Your task to perform on an android device: Clear the shopping cart on amazon. Add "razer deathadder" to the cart on amazon Image 0: 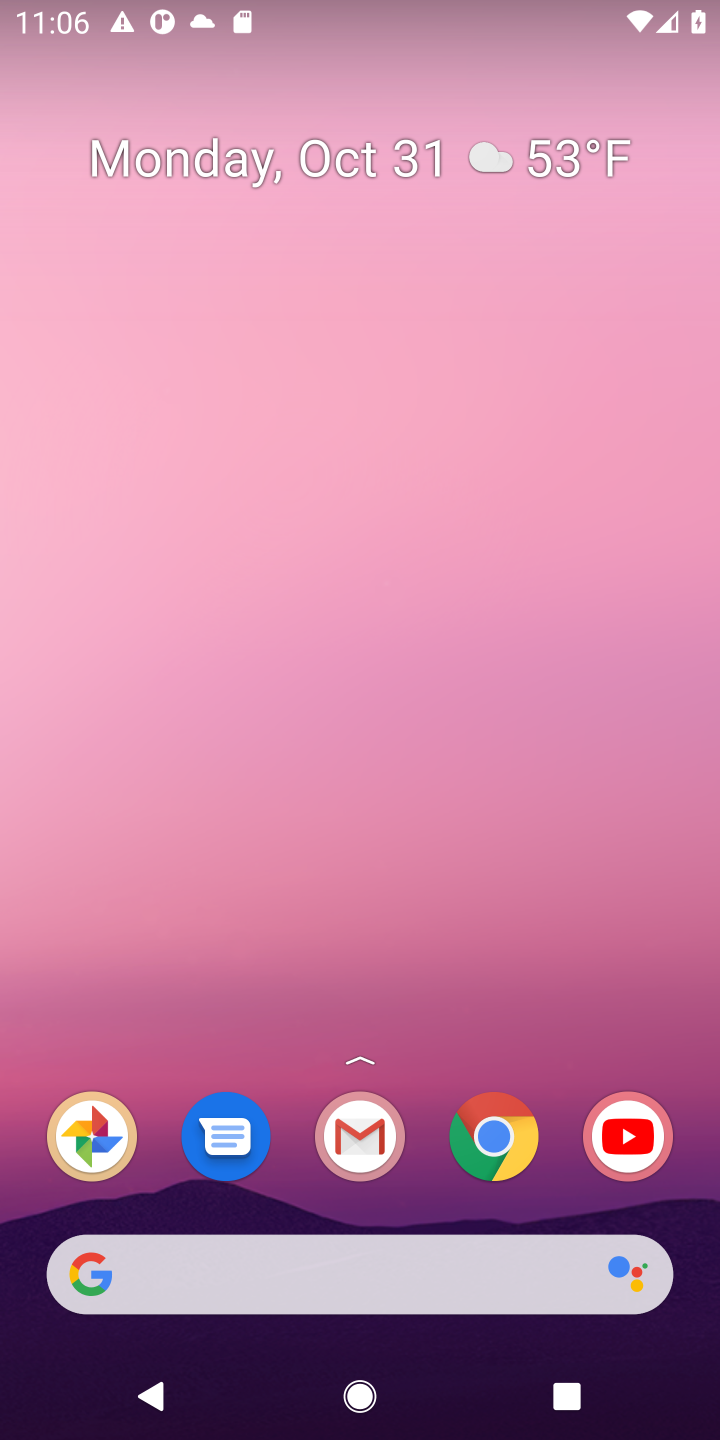
Step 0: press home button
Your task to perform on an android device: Clear the shopping cart on amazon. Add "razer deathadder" to the cart on amazon Image 1: 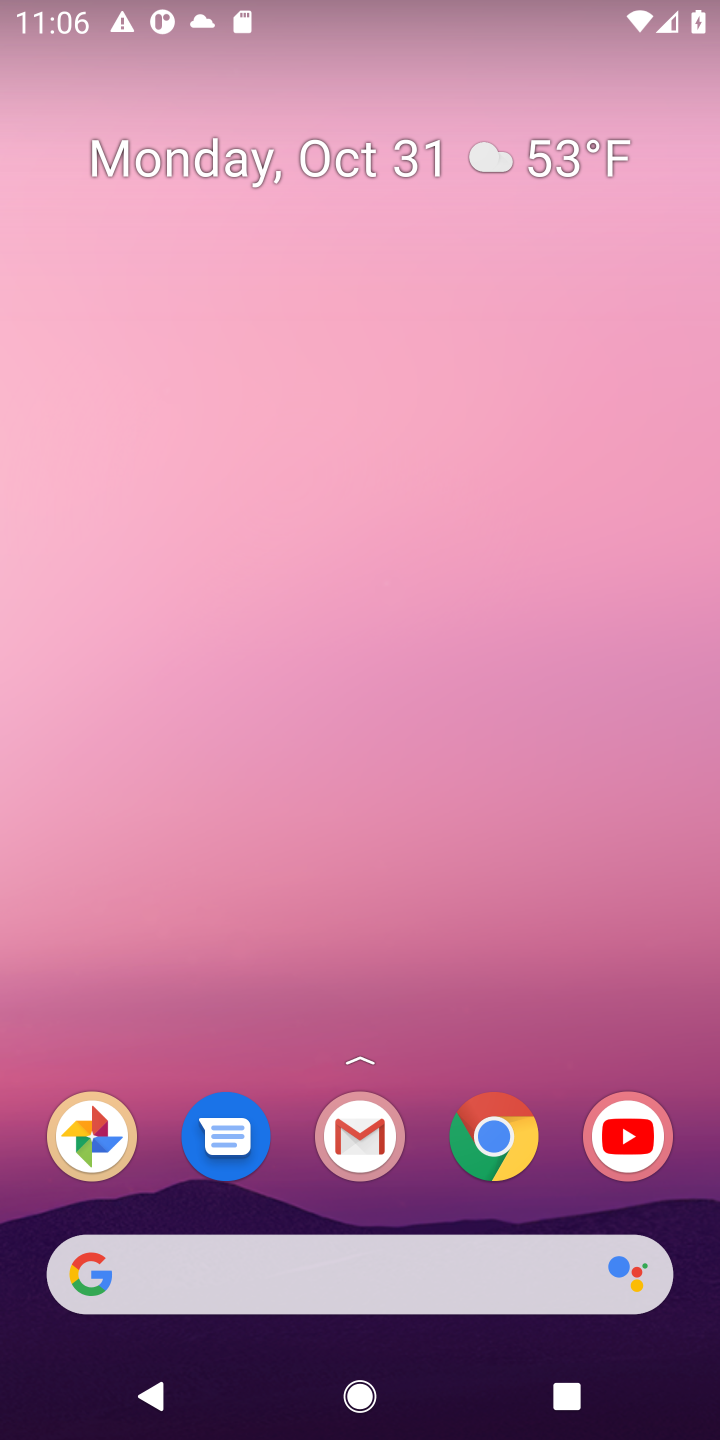
Step 1: click (135, 1277)
Your task to perform on an android device: Clear the shopping cart on amazon. Add "razer deathadder" to the cart on amazon Image 2: 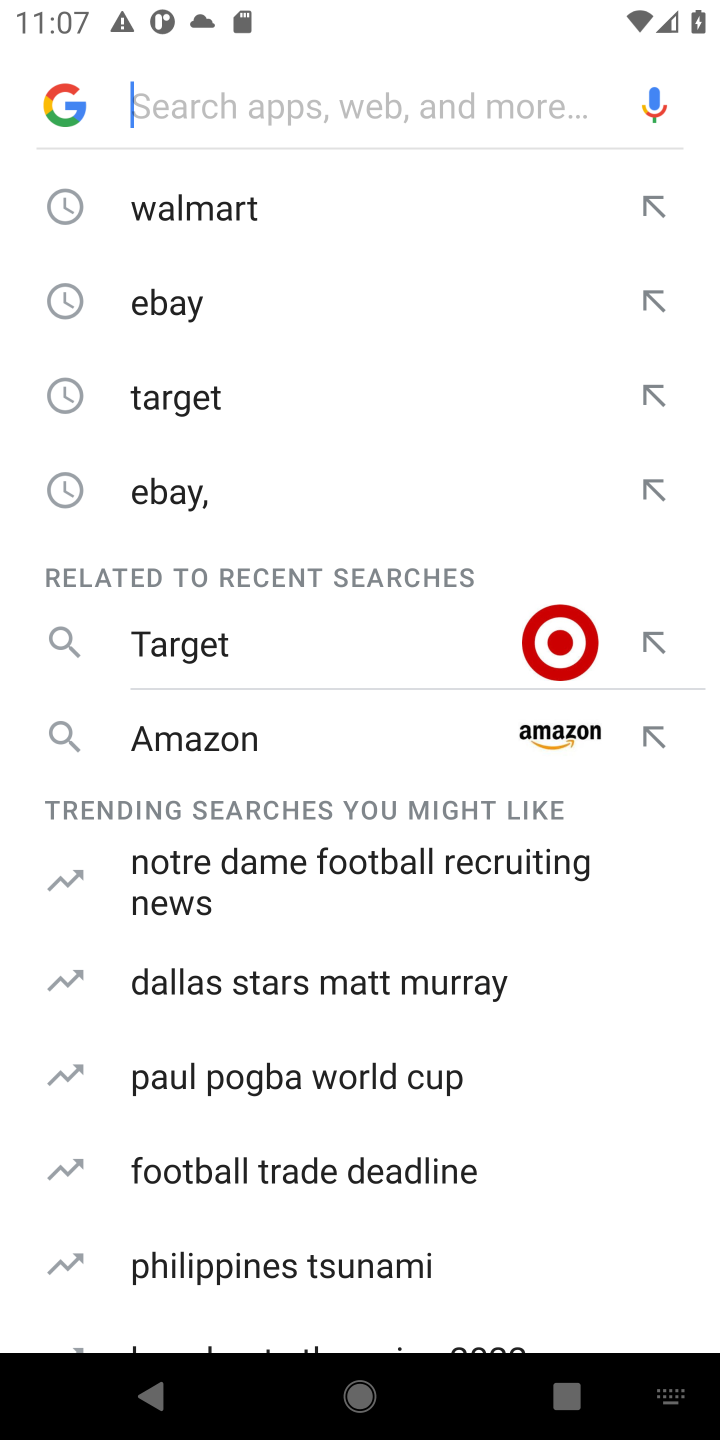
Step 2: type " amazon"
Your task to perform on an android device: Clear the shopping cart on amazon. Add "razer deathadder" to the cart on amazon Image 3: 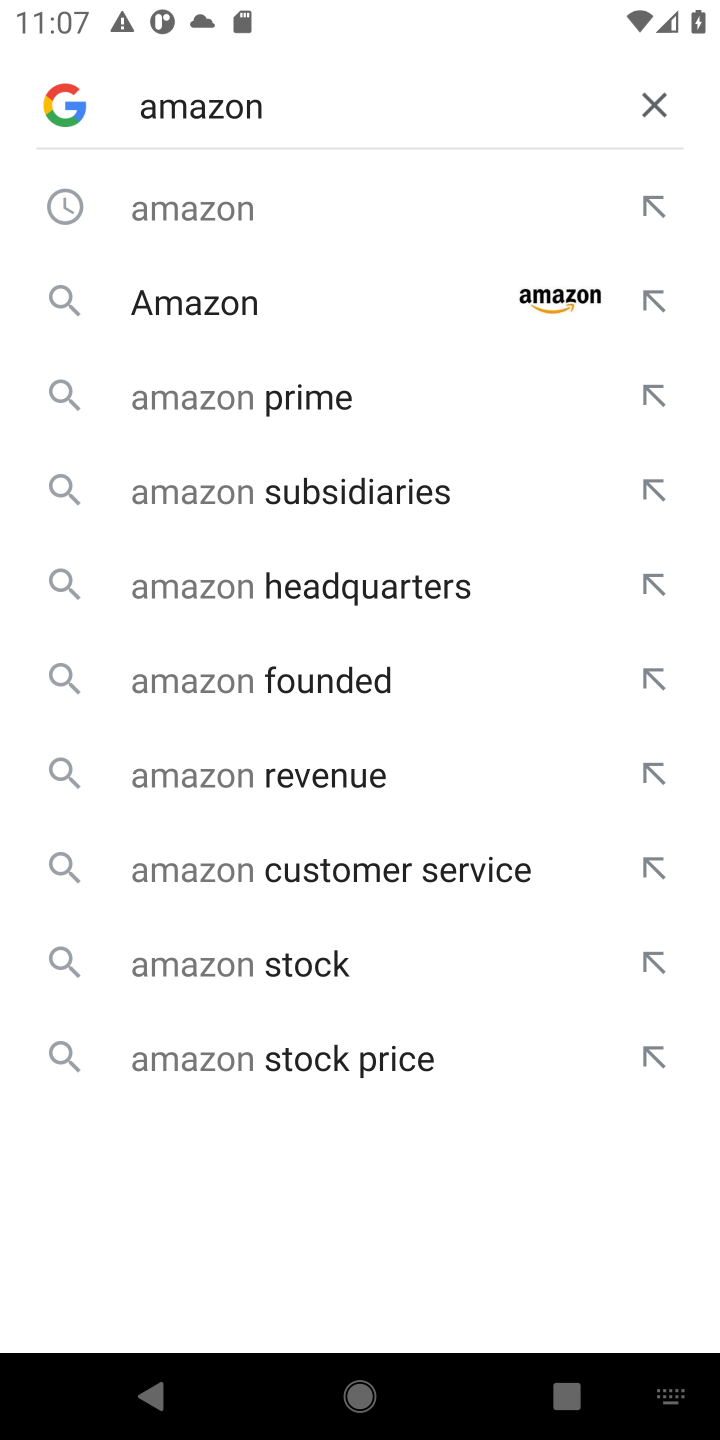
Step 3: press enter
Your task to perform on an android device: Clear the shopping cart on amazon. Add "razer deathadder" to the cart on amazon Image 4: 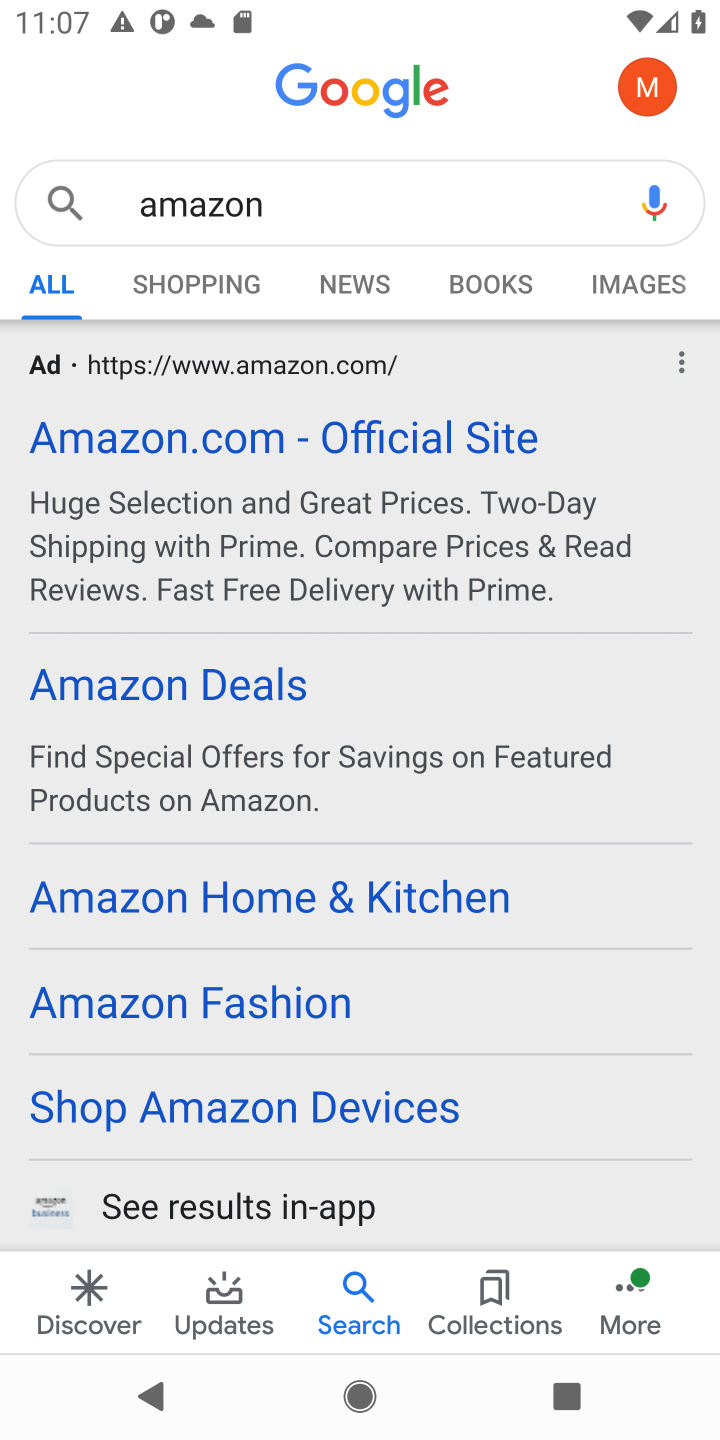
Step 4: click (244, 432)
Your task to perform on an android device: Clear the shopping cart on amazon. Add "razer deathadder" to the cart on amazon Image 5: 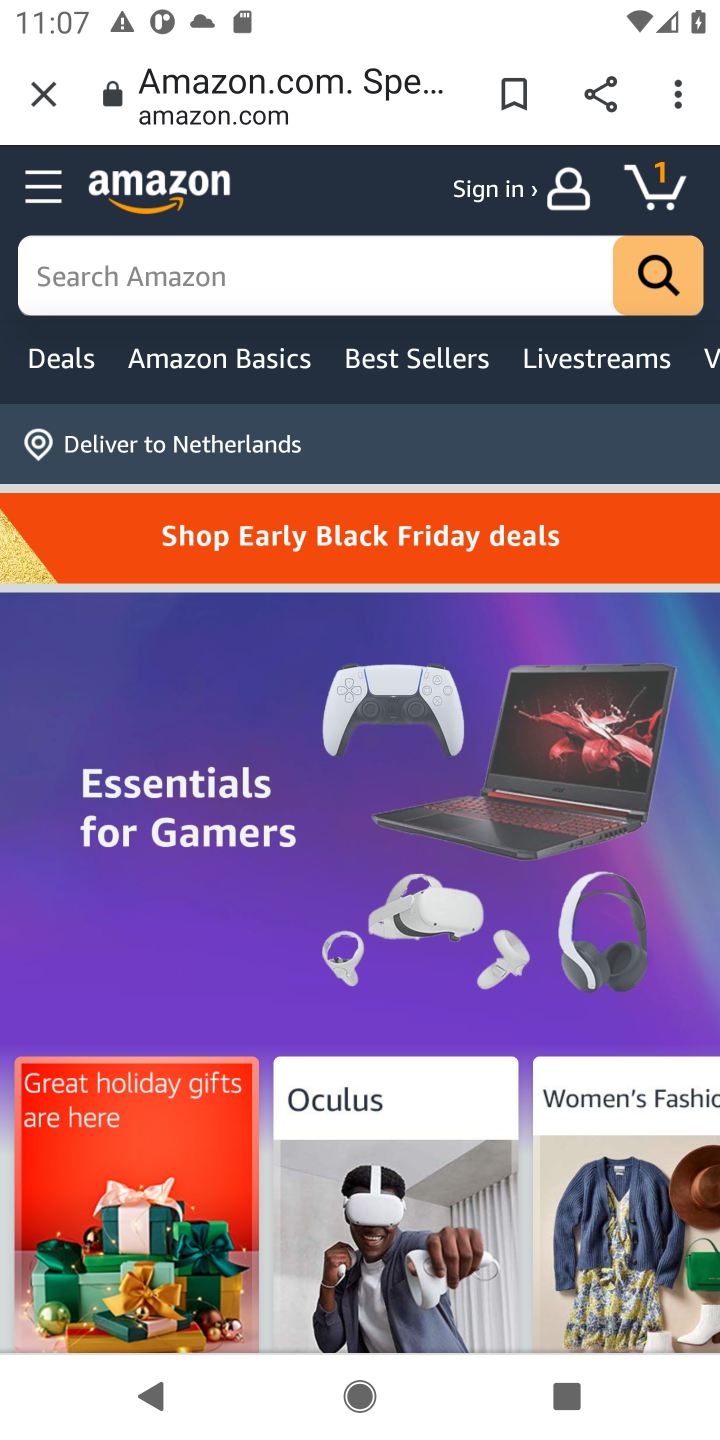
Step 5: click (656, 177)
Your task to perform on an android device: Clear the shopping cart on amazon. Add "razer deathadder" to the cart on amazon Image 6: 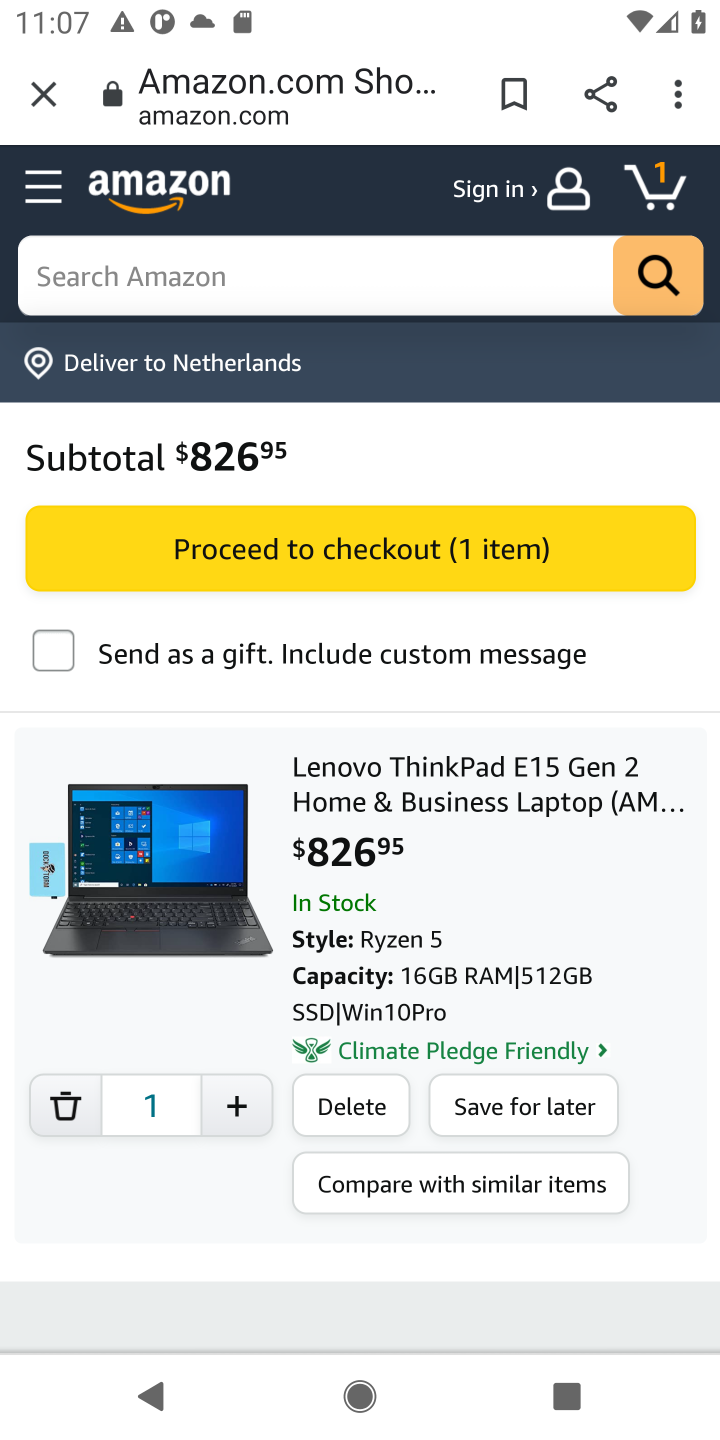
Step 6: click (250, 281)
Your task to perform on an android device: Clear the shopping cart on amazon. Add "razer deathadder" to the cart on amazon Image 7: 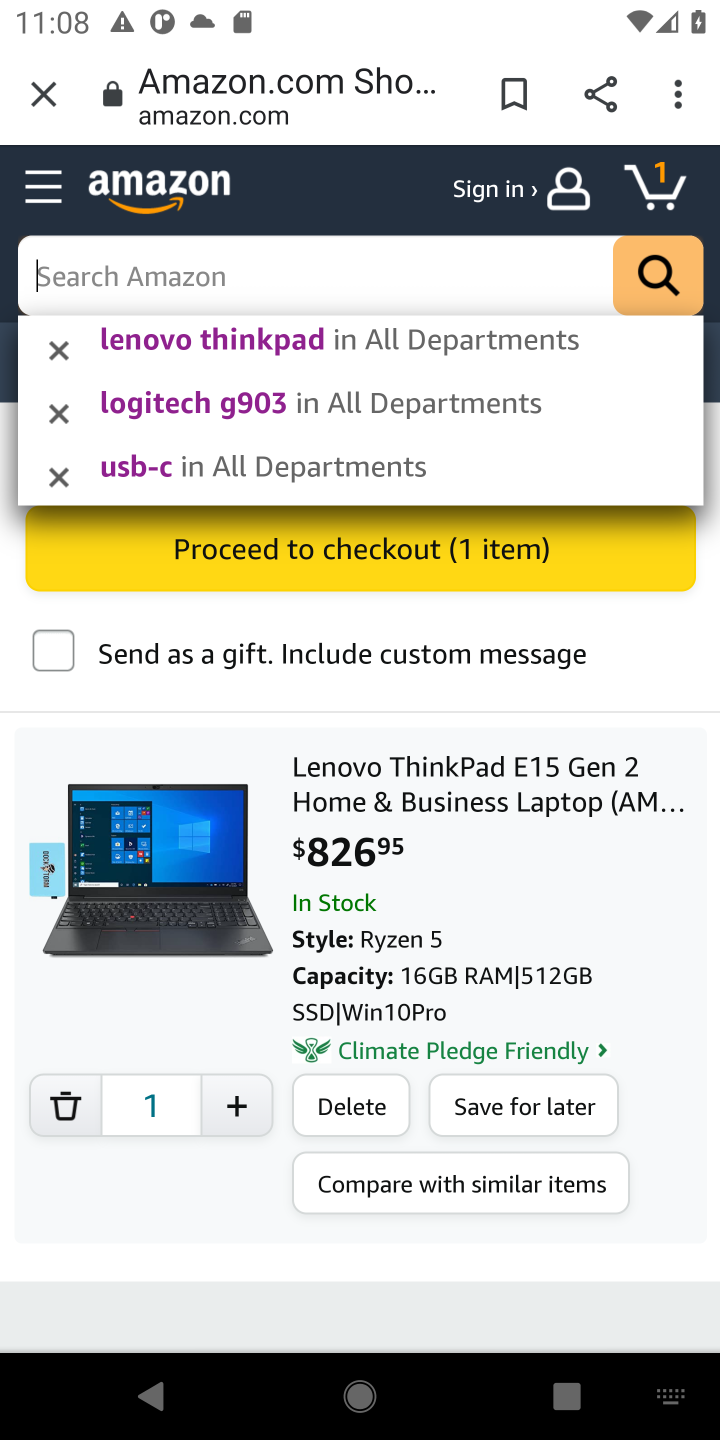
Step 7: type "razer deathadder"
Your task to perform on an android device: Clear the shopping cart on amazon. Add "razer deathadder" to the cart on amazon Image 8: 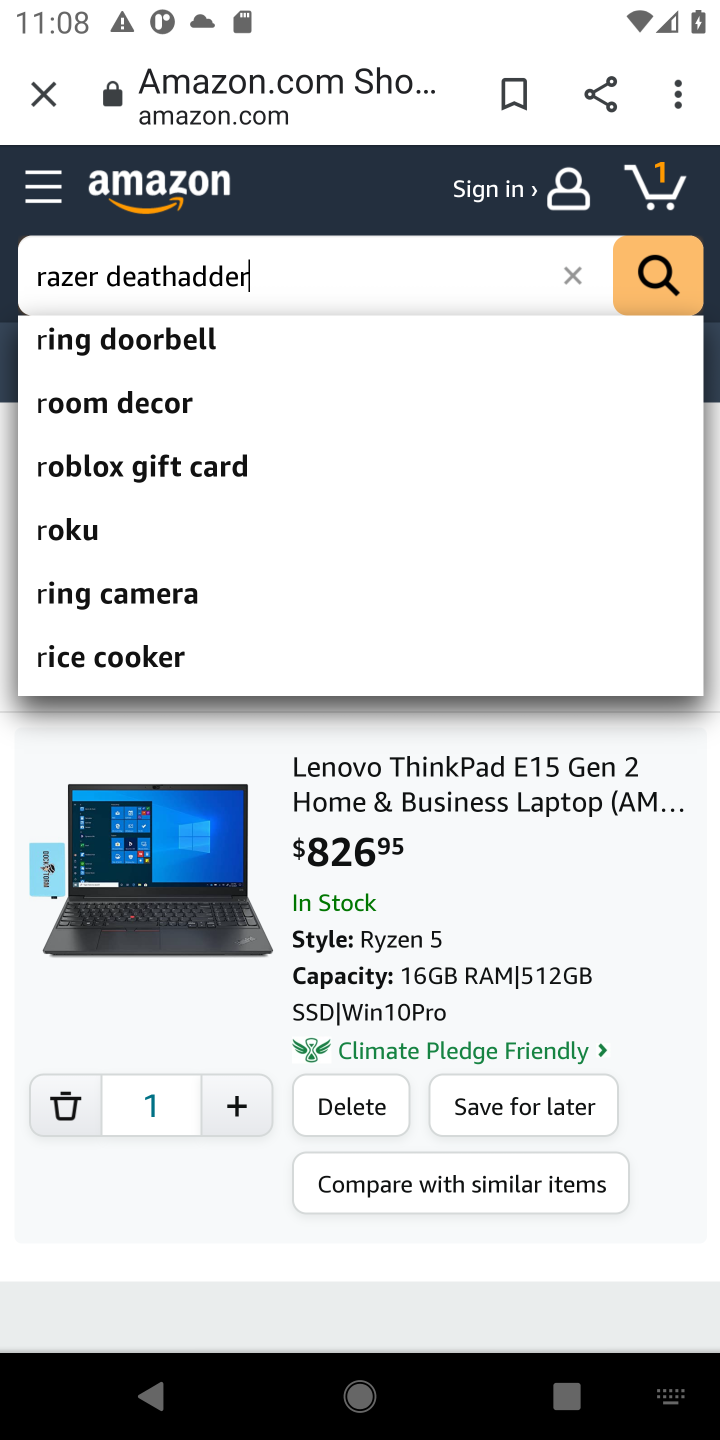
Step 8: press enter
Your task to perform on an android device: Clear the shopping cart on amazon. Add "razer deathadder" to the cart on amazon Image 9: 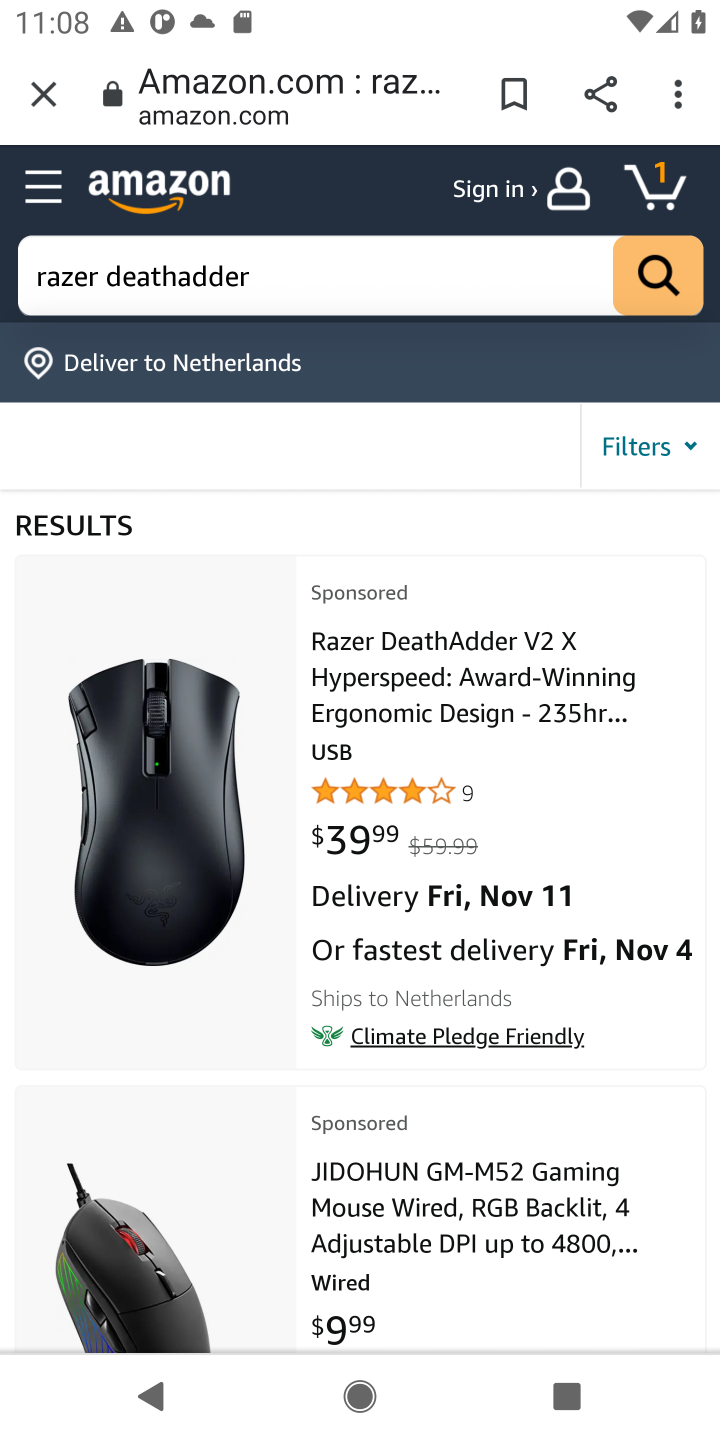
Step 9: click (465, 676)
Your task to perform on an android device: Clear the shopping cart on amazon. Add "razer deathadder" to the cart on amazon Image 10: 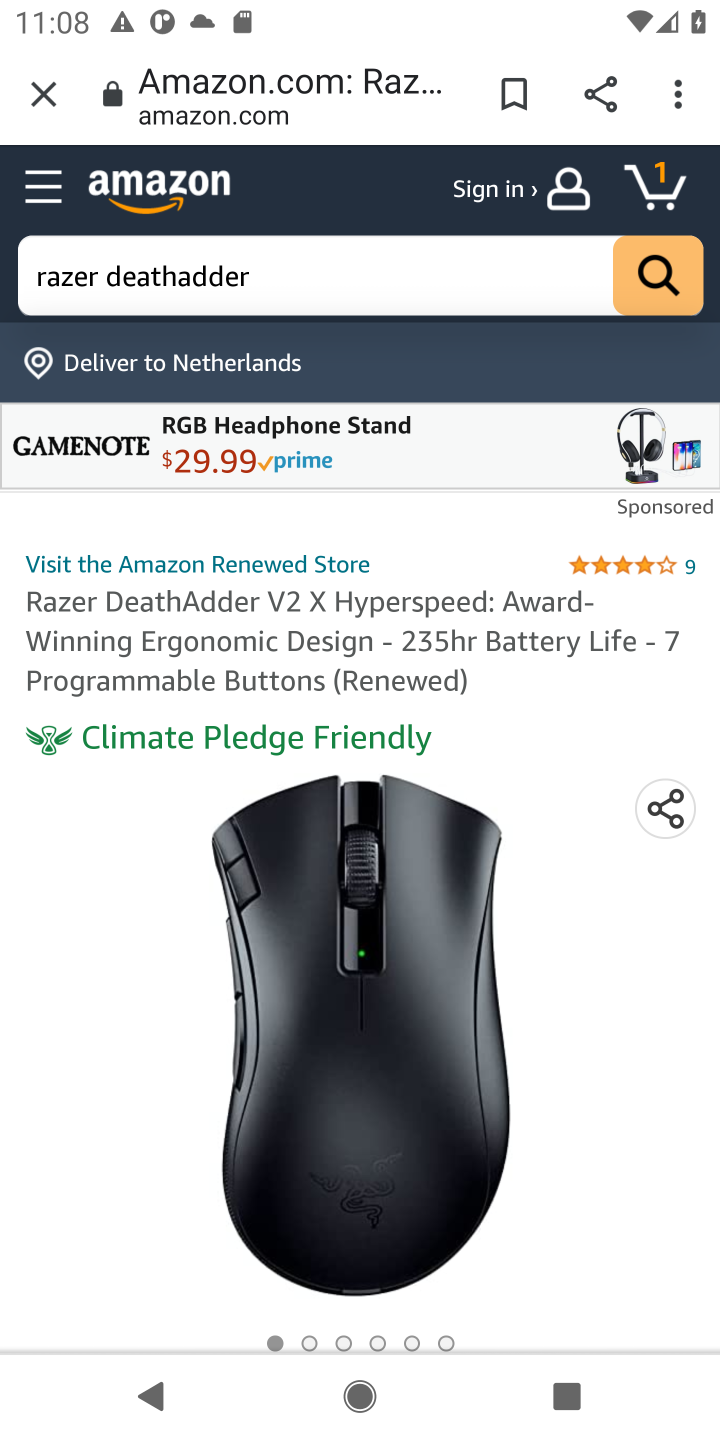
Step 10: drag from (479, 1057) to (514, 575)
Your task to perform on an android device: Clear the shopping cart on amazon. Add "razer deathadder" to the cart on amazon Image 11: 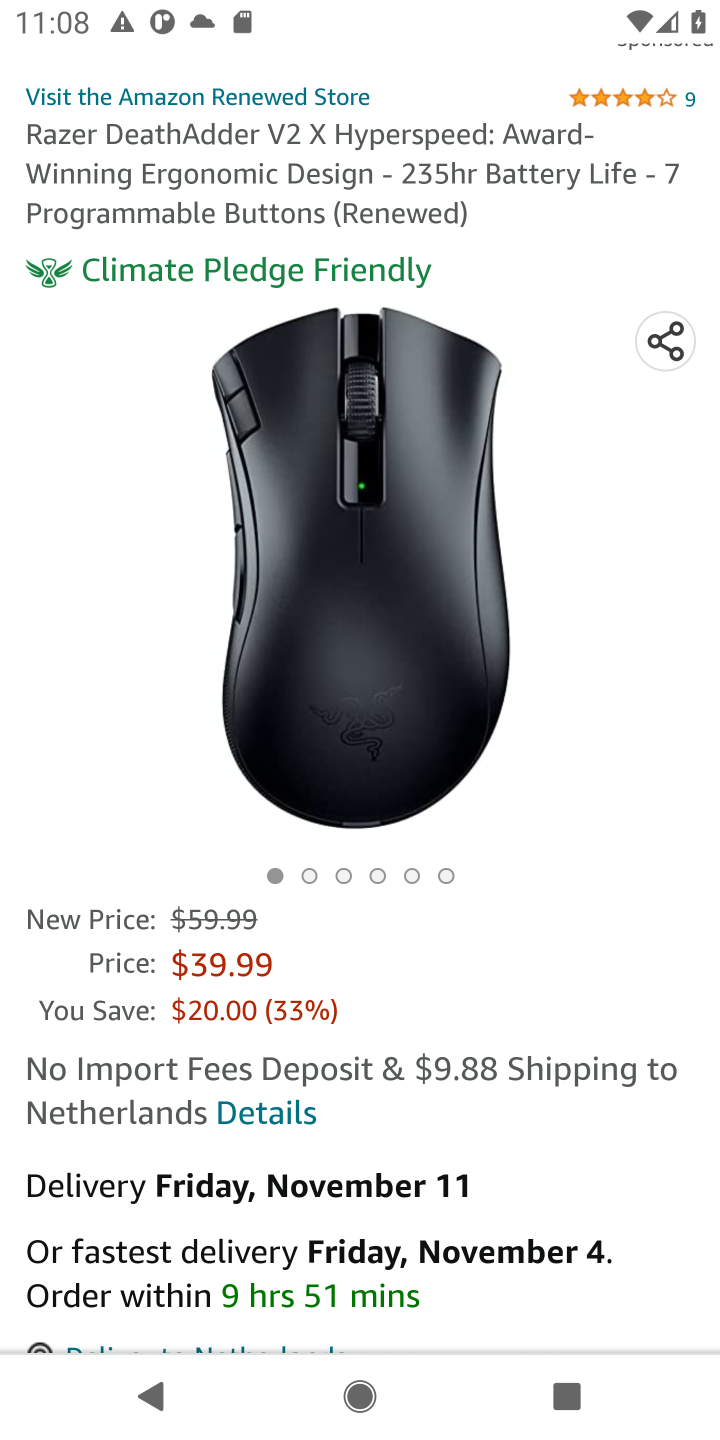
Step 11: drag from (490, 1092) to (464, 448)
Your task to perform on an android device: Clear the shopping cart on amazon. Add "razer deathadder" to the cart on amazon Image 12: 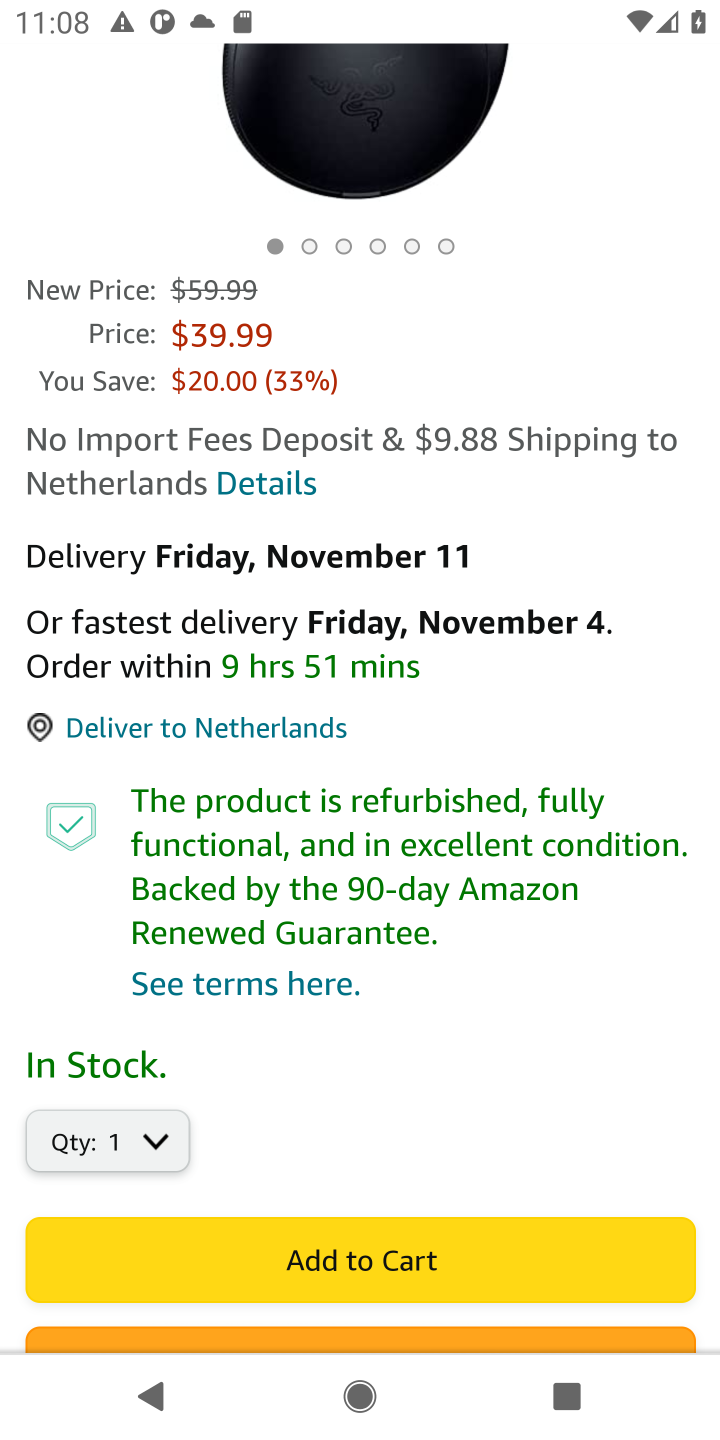
Step 12: drag from (371, 1109) to (428, 548)
Your task to perform on an android device: Clear the shopping cart on amazon. Add "razer deathadder" to the cart on amazon Image 13: 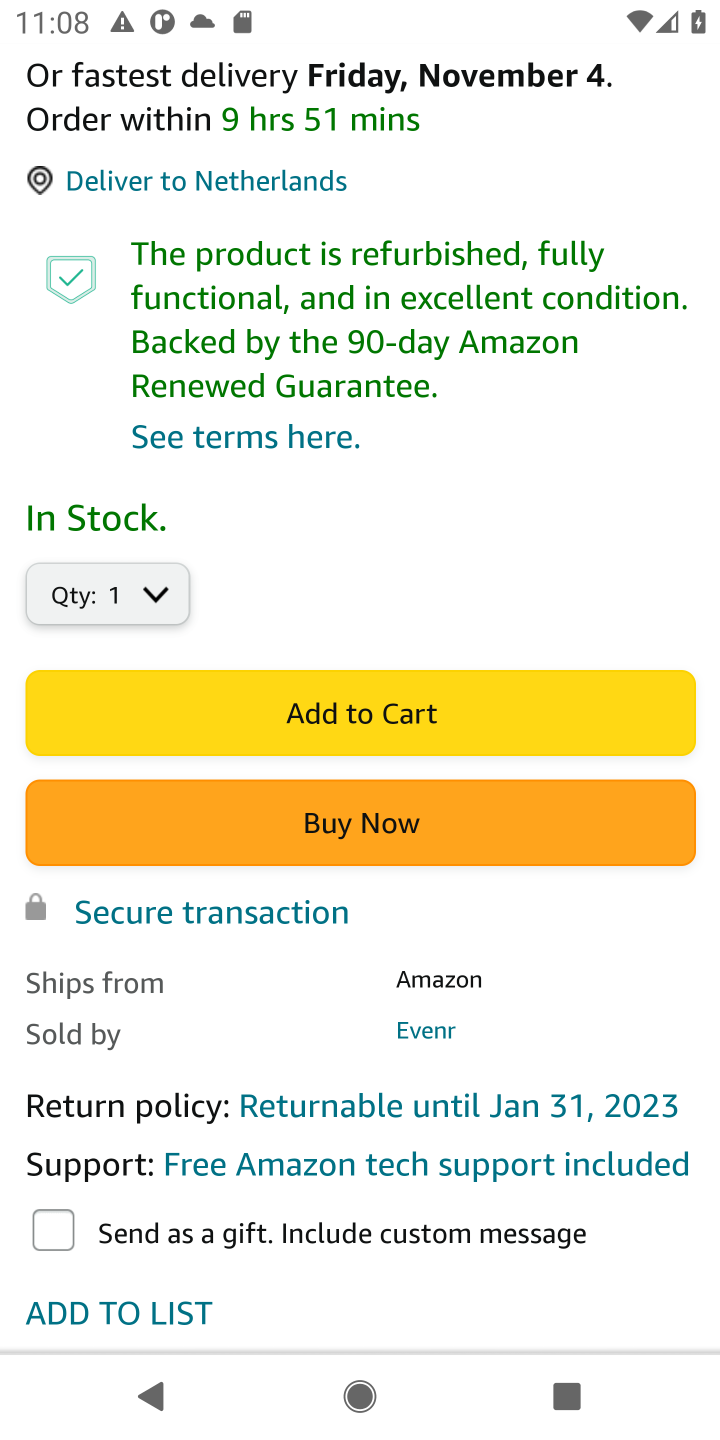
Step 13: click (444, 714)
Your task to perform on an android device: Clear the shopping cart on amazon. Add "razer deathadder" to the cart on amazon Image 14: 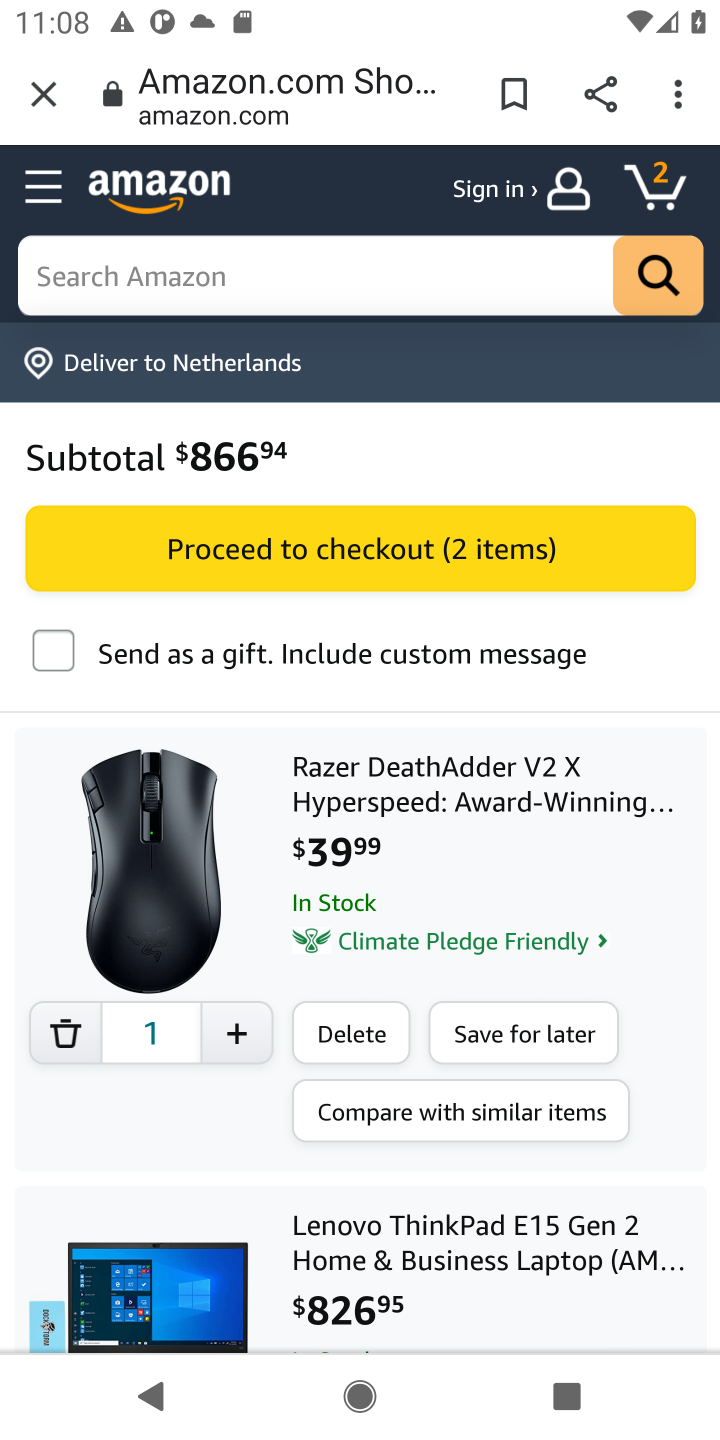
Step 14: task complete